Your task to perform on an android device: empty trash in google photos Image 0: 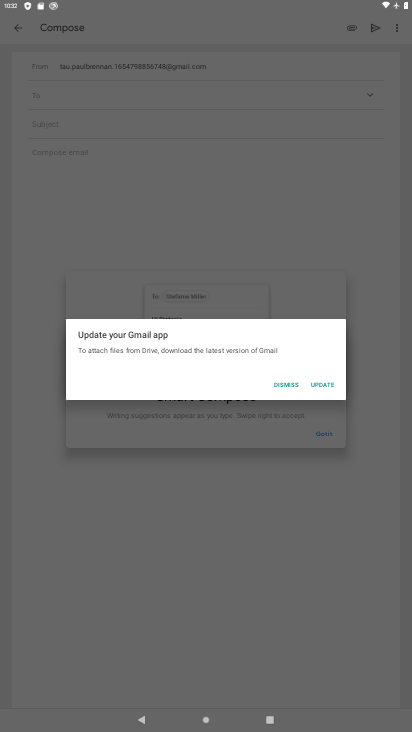
Step 0: press home button
Your task to perform on an android device: empty trash in google photos Image 1: 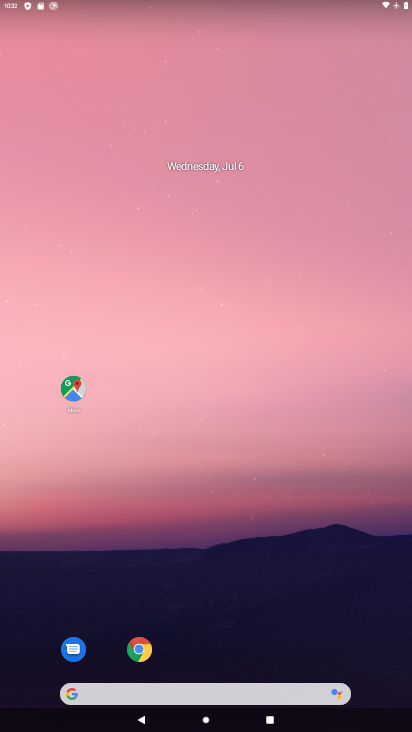
Step 1: drag from (348, 691) to (281, 61)
Your task to perform on an android device: empty trash in google photos Image 2: 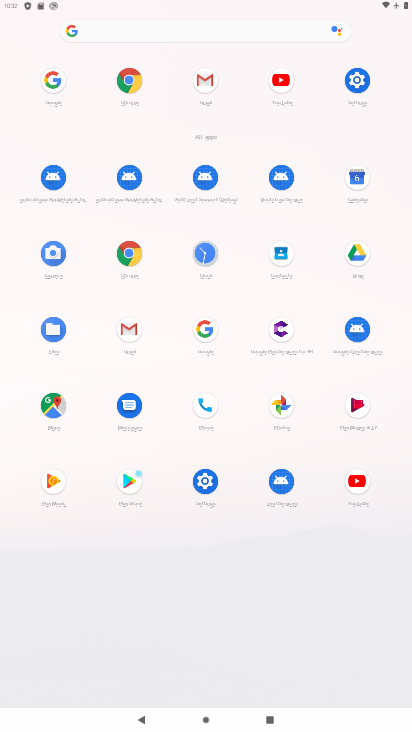
Step 2: click (292, 401)
Your task to perform on an android device: empty trash in google photos Image 3: 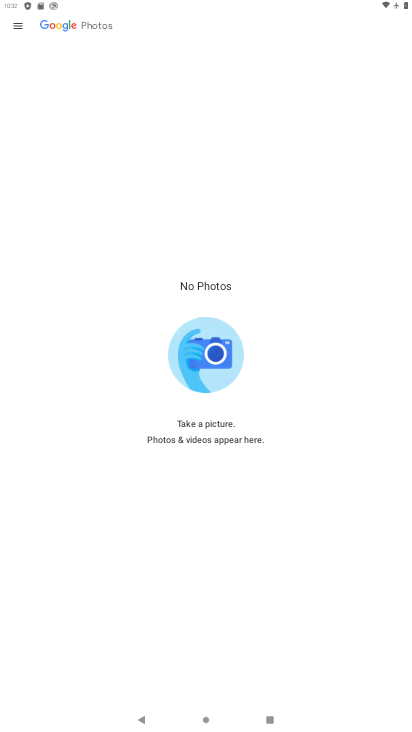
Step 3: click (17, 28)
Your task to perform on an android device: empty trash in google photos Image 4: 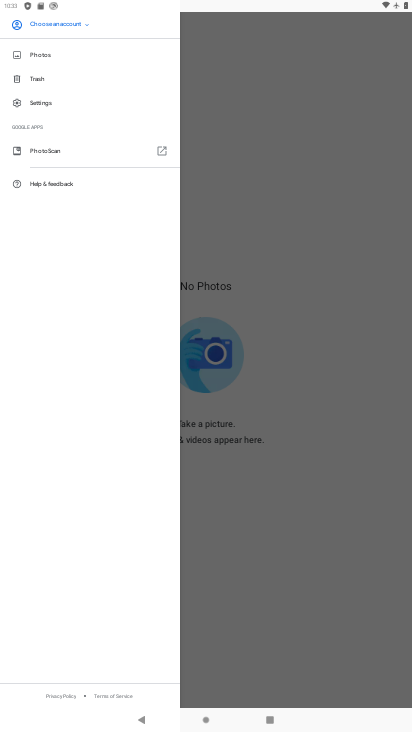
Step 4: click (25, 78)
Your task to perform on an android device: empty trash in google photos Image 5: 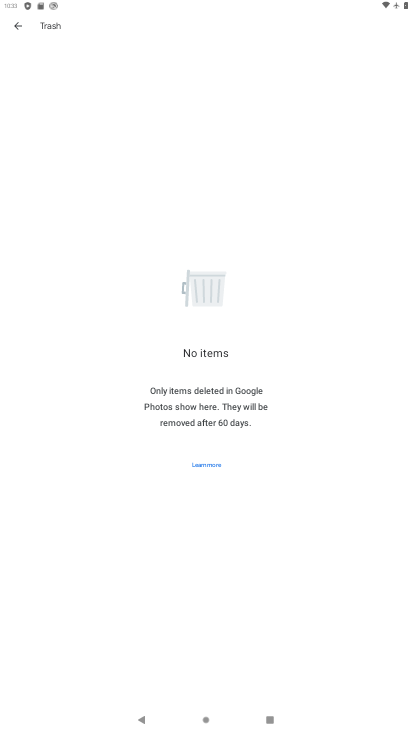
Step 5: task complete